Your task to perform on an android device: turn off sleep mode Image 0: 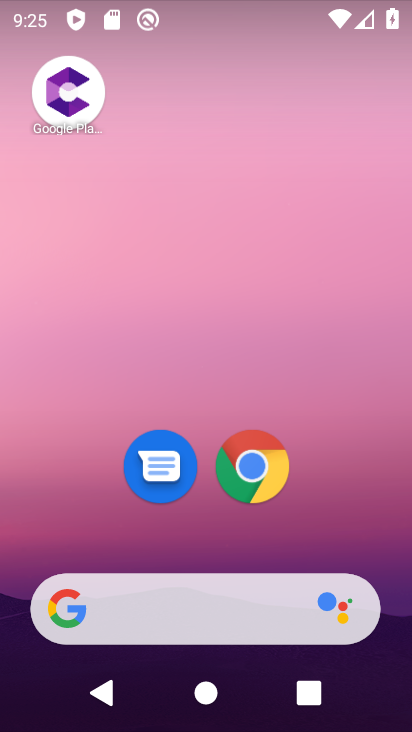
Step 0: drag from (315, 19) to (327, 556)
Your task to perform on an android device: turn off sleep mode Image 1: 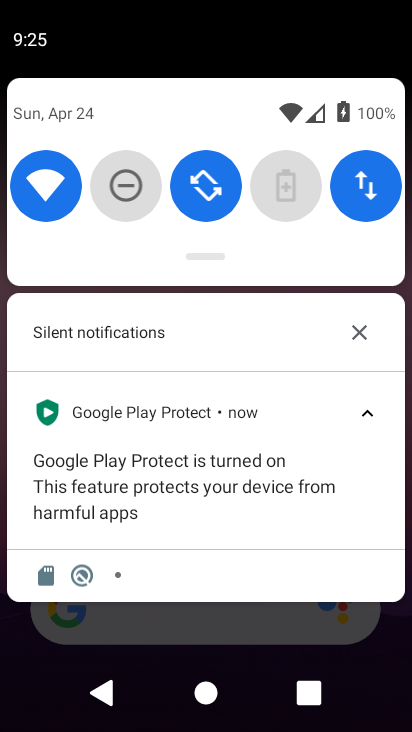
Step 1: drag from (235, 252) to (266, 606)
Your task to perform on an android device: turn off sleep mode Image 2: 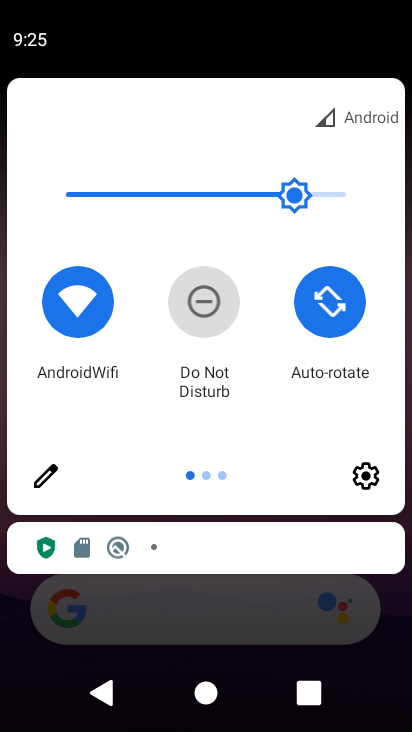
Step 2: click (53, 471)
Your task to perform on an android device: turn off sleep mode Image 3: 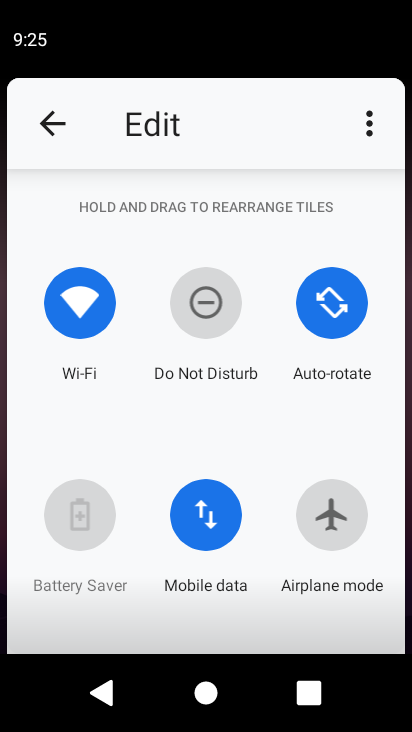
Step 3: task complete